Your task to perform on an android device: show emergency info Image 0: 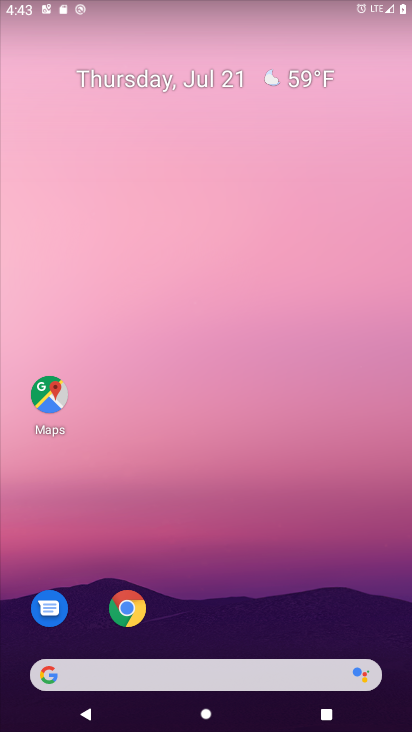
Step 0: drag from (277, 554) to (353, 136)
Your task to perform on an android device: show emergency info Image 1: 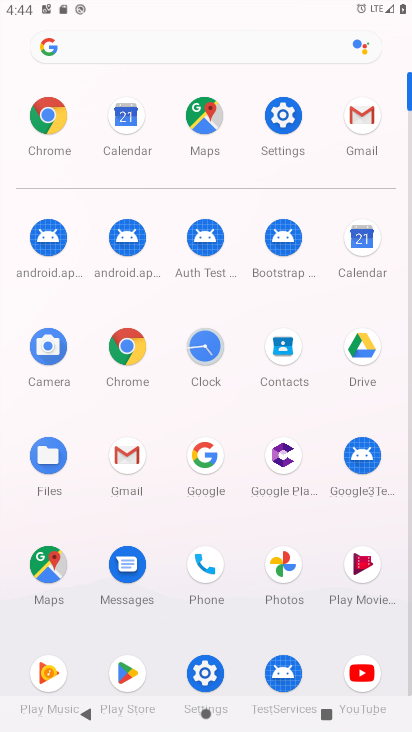
Step 1: click (284, 117)
Your task to perform on an android device: show emergency info Image 2: 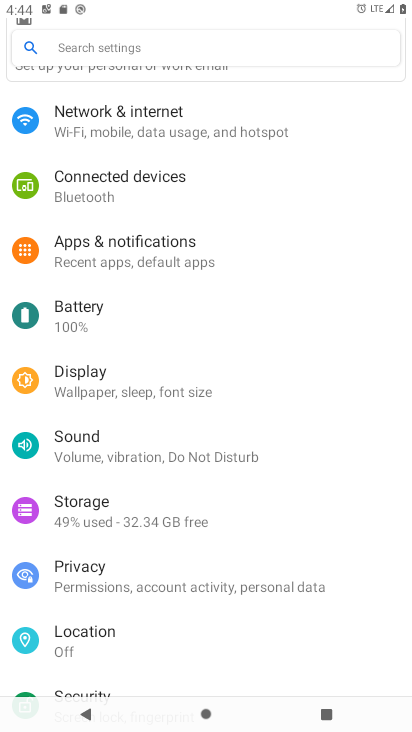
Step 2: drag from (250, 570) to (302, 164)
Your task to perform on an android device: show emergency info Image 3: 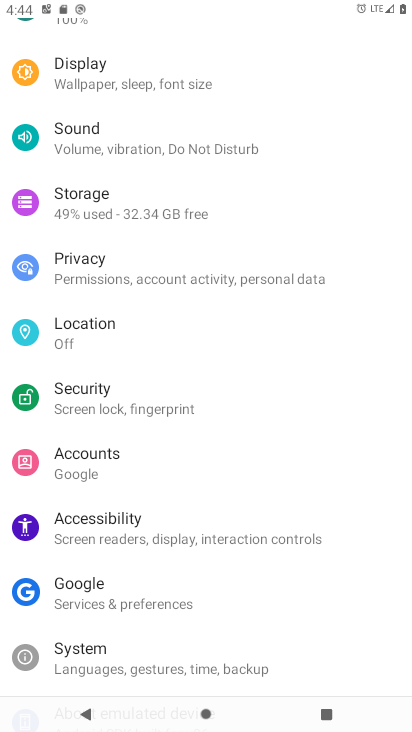
Step 3: click (179, 654)
Your task to perform on an android device: show emergency info Image 4: 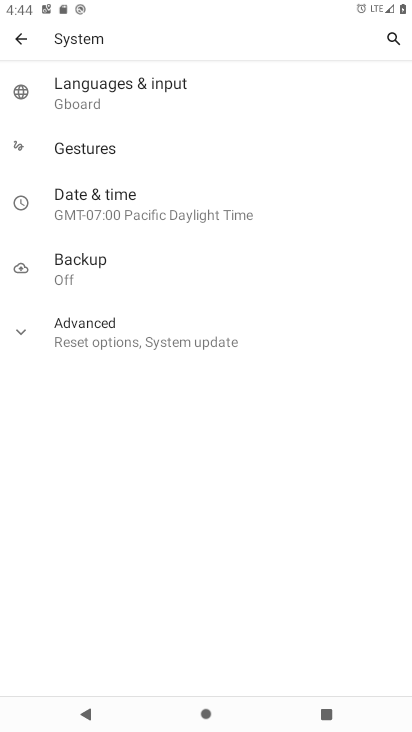
Step 4: press back button
Your task to perform on an android device: show emergency info Image 5: 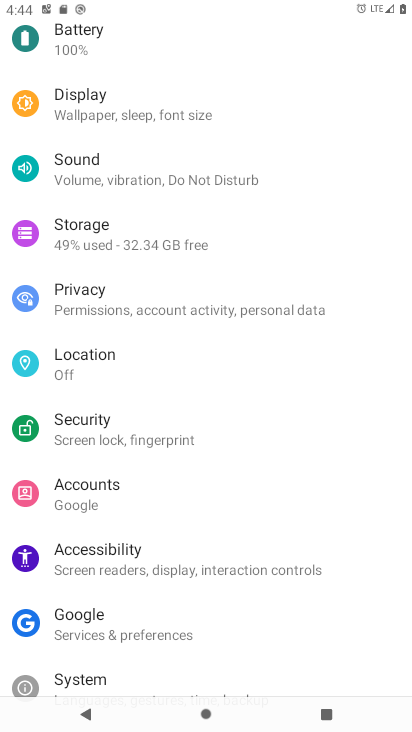
Step 5: drag from (326, 595) to (399, 296)
Your task to perform on an android device: show emergency info Image 6: 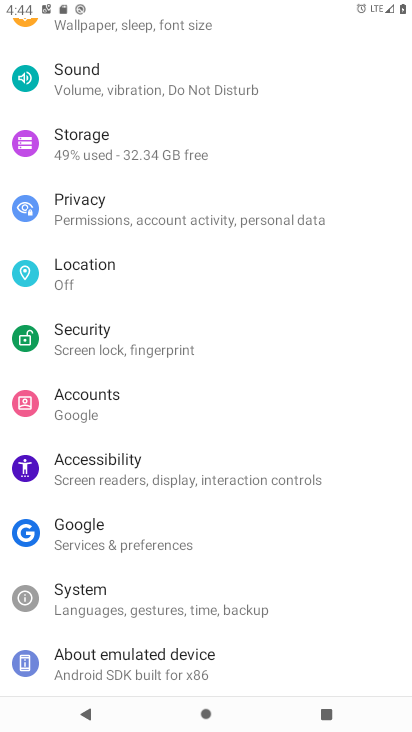
Step 6: click (260, 665)
Your task to perform on an android device: show emergency info Image 7: 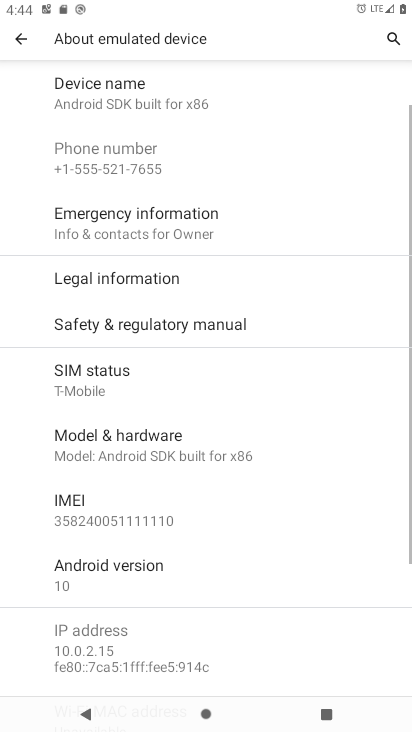
Step 7: task complete